Your task to perform on an android device: Open Chrome and go to settings Image 0: 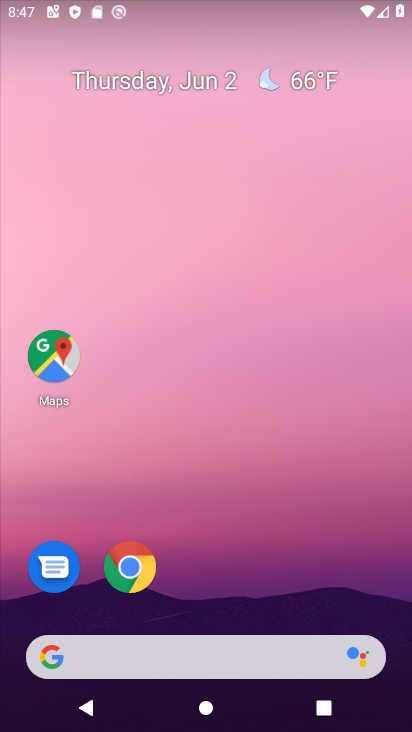
Step 0: click (144, 562)
Your task to perform on an android device: Open Chrome and go to settings Image 1: 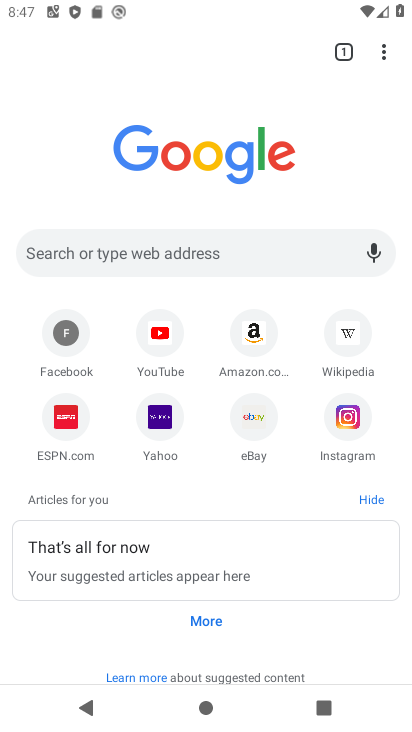
Step 1: click (382, 48)
Your task to perform on an android device: Open Chrome and go to settings Image 2: 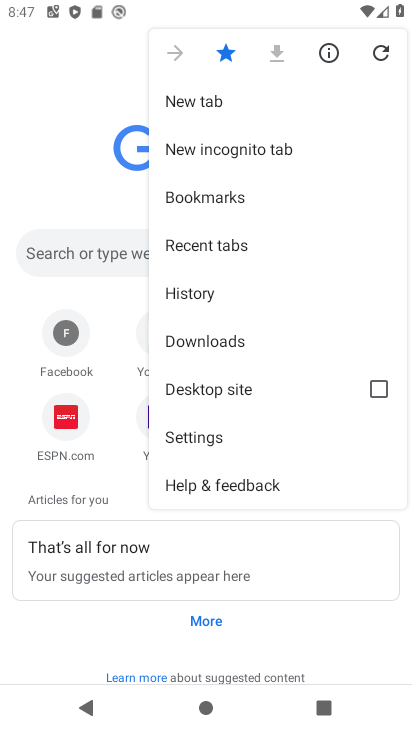
Step 2: click (206, 446)
Your task to perform on an android device: Open Chrome and go to settings Image 3: 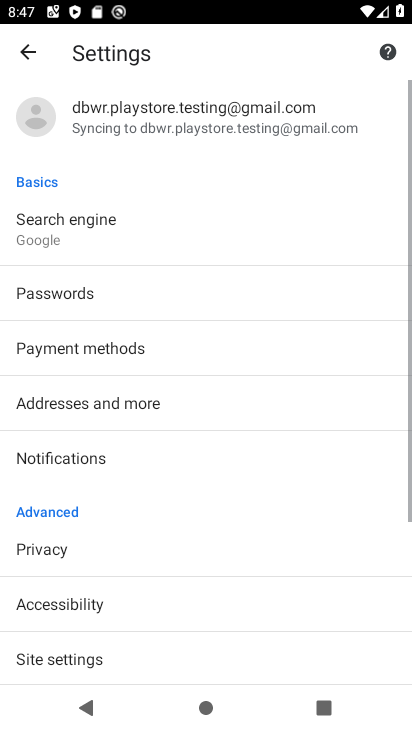
Step 3: task complete